Your task to perform on an android device: turn on notifications settings in the gmail app Image 0: 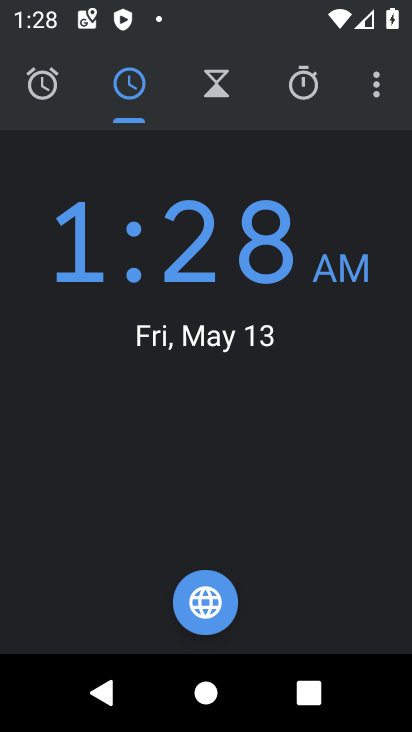
Step 0: press home button
Your task to perform on an android device: turn on notifications settings in the gmail app Image 1: 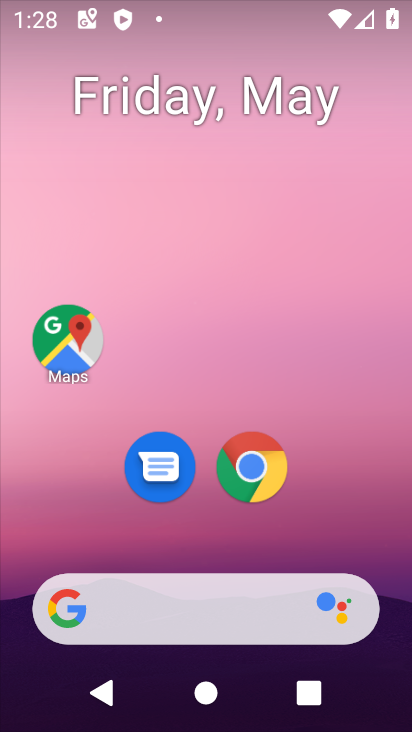
Step 1: drag from (331, 522) to (368, 142)
Your task to perform on an android device: turn on notifications settings in the gmail app Image 2: 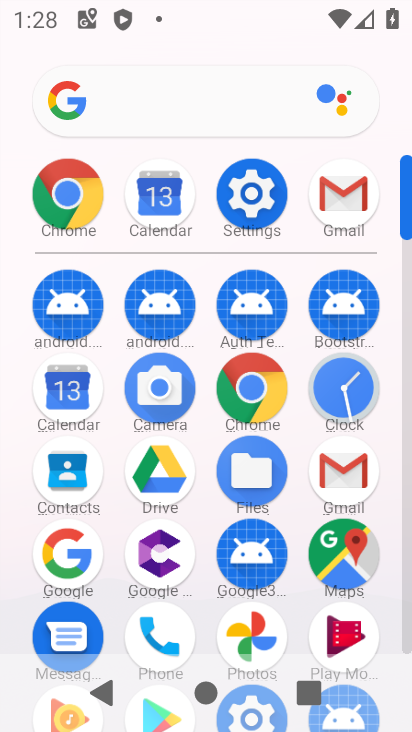
Step 2: click (338, 210)
Your task to perform on an android device: turn on notifications settings in the gmail app Image 3: 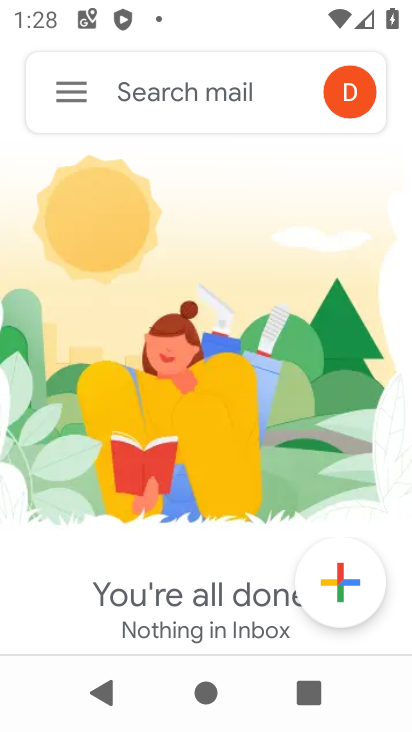
Step 3: click (69, 86)
Your task to perform on an android device: turn on notifications settings in the gmail app Image 4: 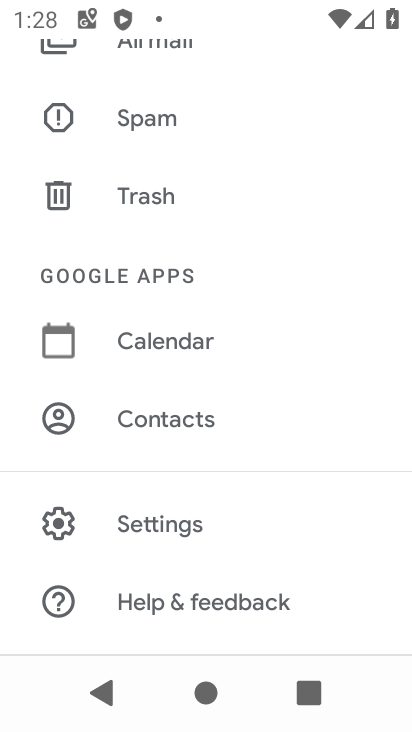
Step 4: click (161, 536)
Your task to perform on an android device: turn on notifications settings in the gmail app Image 5: 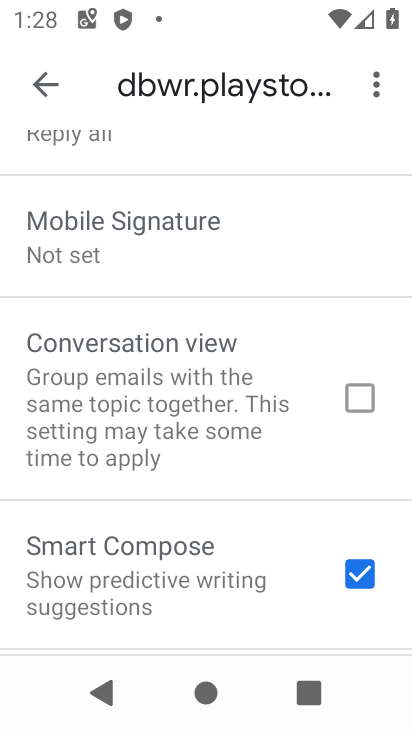
Step 5: drag from (162, 284) to (172, 646)
Your task to perform on an android device: turn on notifications settings in the gmail app Image 6: 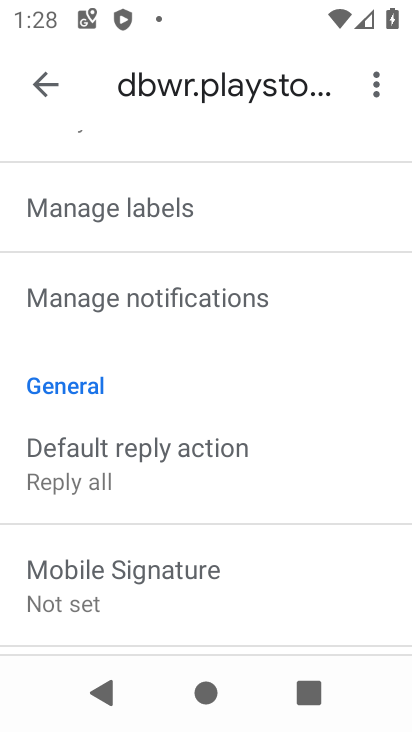
Step 6: drag from (131, 325) to (115, 723)
Your task to perform on an android device: turn on notifications settings in the gmail app Image 7: 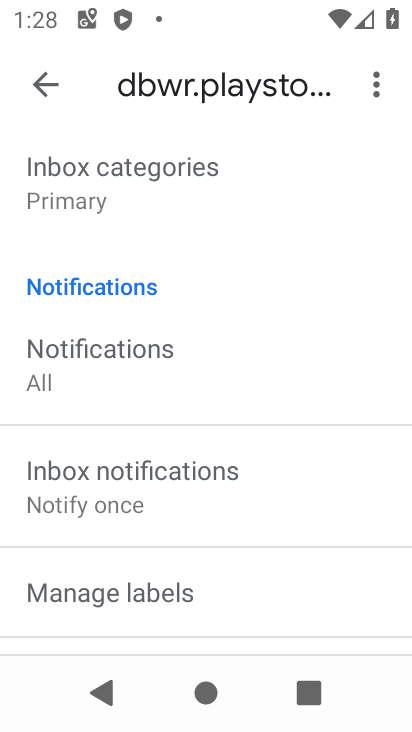
Step 7: drag from (108, 547) to (121, 362)
Your task to perform on an android device: turn on notifications settings in the gmail app Image 8: 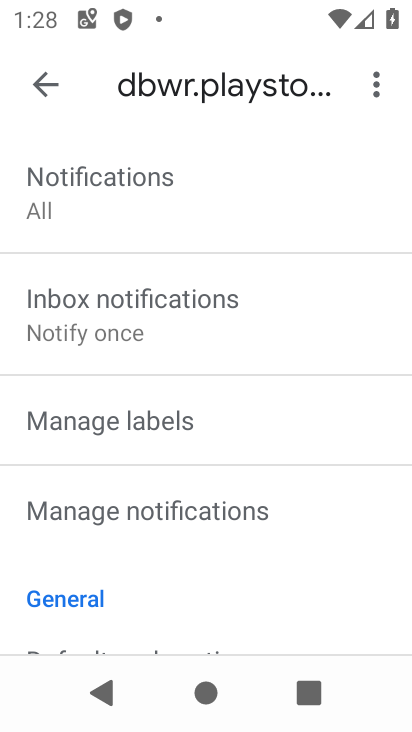
Step 8: click (86, 520)
Your task to perform on an android device: turn on notifications settings in the gmail app Image 9: 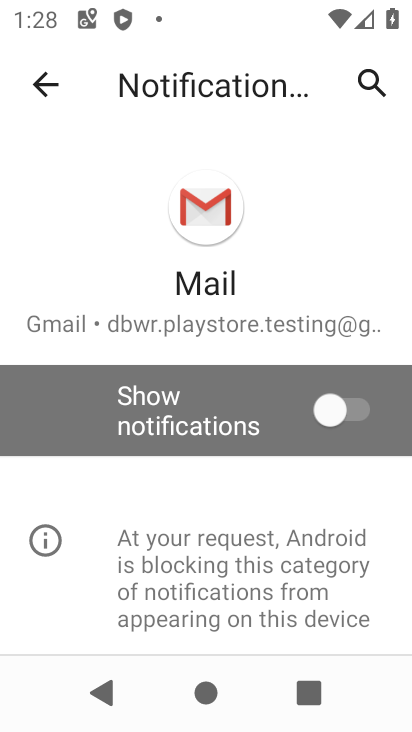
Step 9: click (342, 400)
Your task to perform on an android device: turn on notifications settings in the gmail app Image 10: 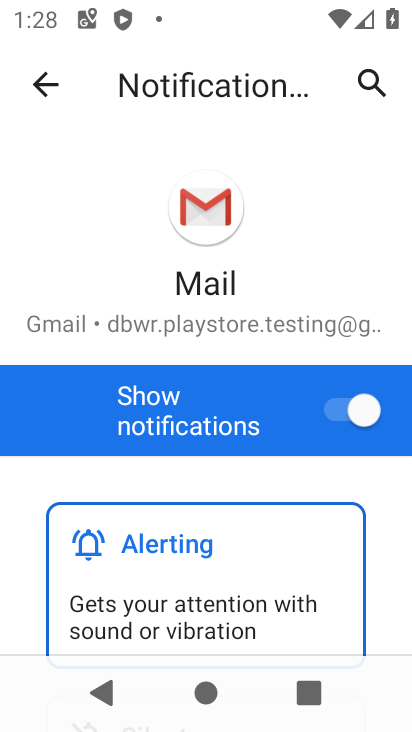
Step 10: task complete